Your task to perform on an android device: allow cookies in the chrome app Image 0: 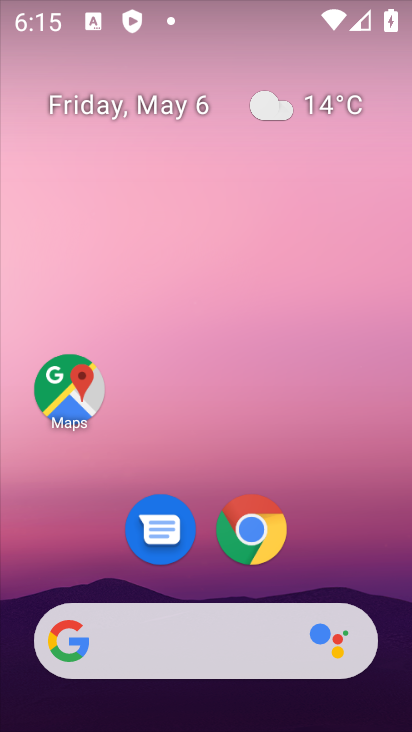
Step 0: click (268, 542)
Your task to perform on an android device: allow cookies in the chrome app Image 1: 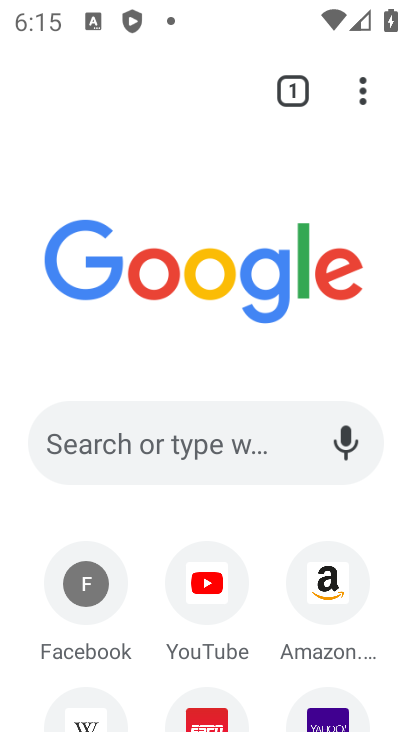
Step 1: click (357, 89)
Your task to perform on an android device: allow cookies in the chrome app Image 2: 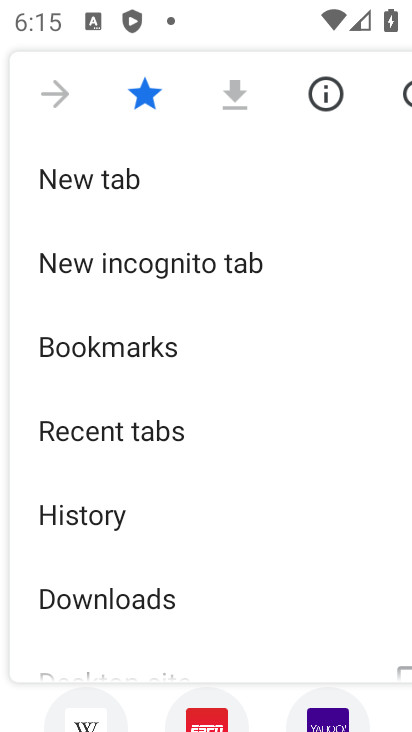
Step 2: drag from (259, 597) to (267, 209)
Your task to perform on an android device: allow cookies in the chrome app Image 3: 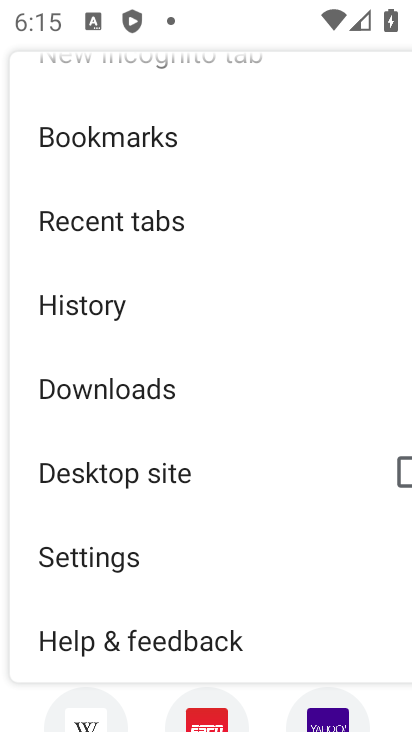
Step 3: click (131, 552)
Your task to perform on an android device: allow cookies in the chrome app Image 4: 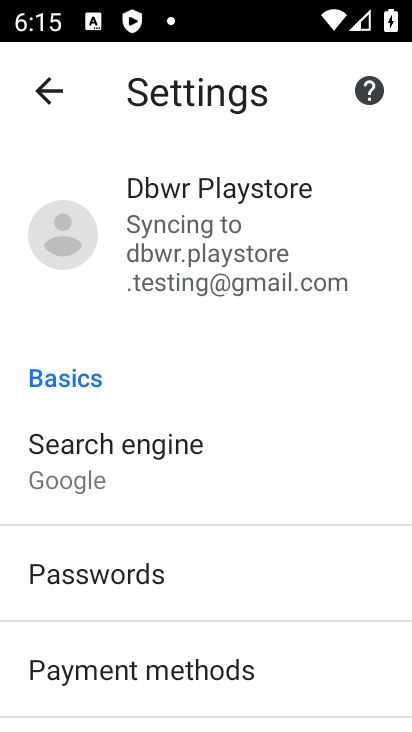
Step 4: drag from (239, 559) to (280, 185)
Your task to perform on an android device: allow cookies in the chrome app Image 5: 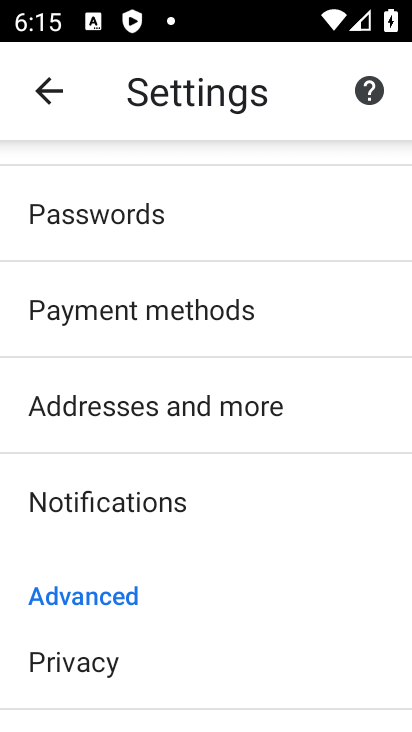
Step 5: drag from (200, 637) to (184, 236)
Your task to perform on an android device: allow cookies in the chrome app Image 6: 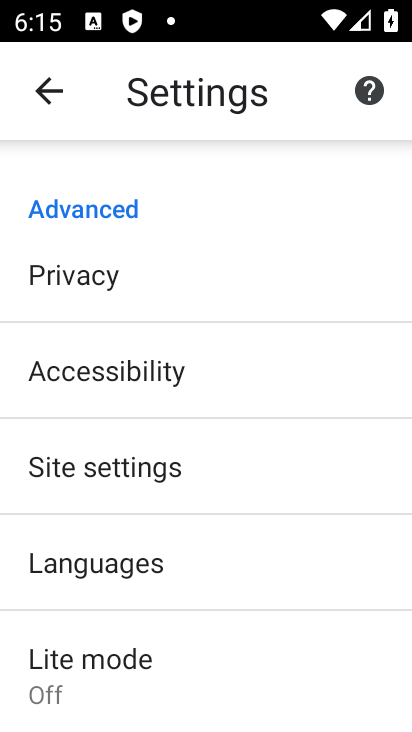
Step 6: click (131, 462)
Your task to perform on an android device: allow cookies in the chrome app Image 7: 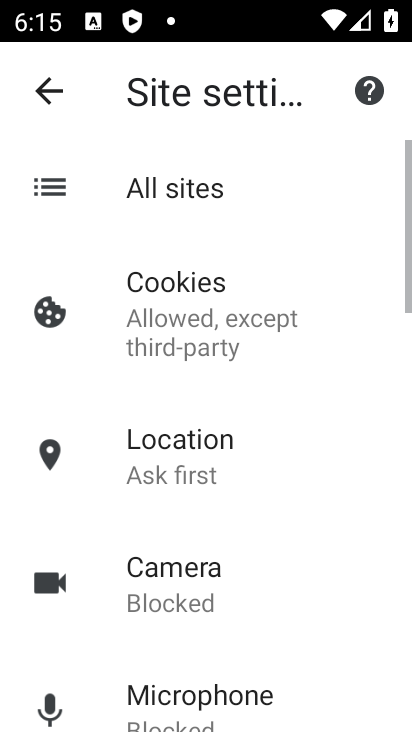
Step 7: click (246, 294)
Your task to perform on an android device: allow cookies in the chrome app Image 8: 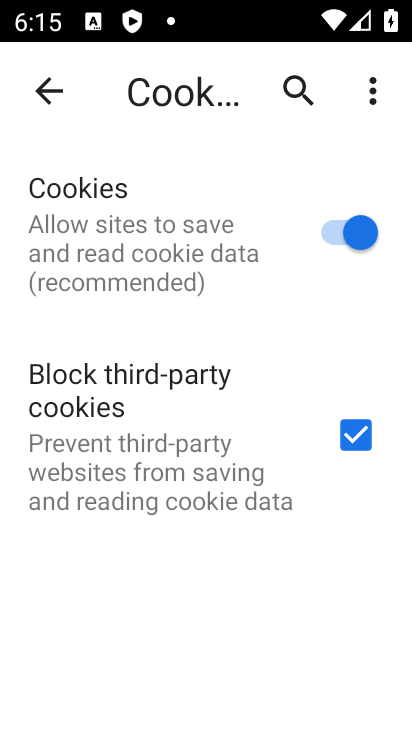
Step 8: task complete